Your task to perform on an android device: allow cookies in the chrome app Image 0: 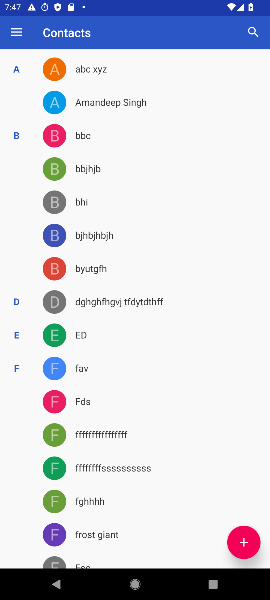
Step 0: press home button
Your task to perform on an android device: allow cookies in the chrome app Image 1: 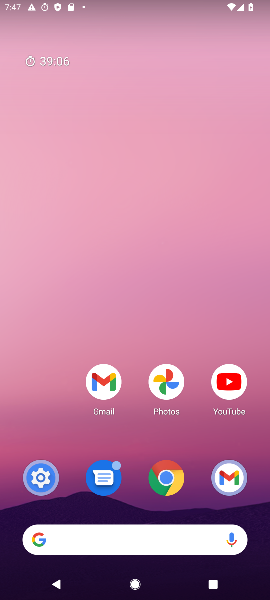
Step 1: click (163, 470)
Your task to perform on an android device: allow cookies in the chrome app Image 2: 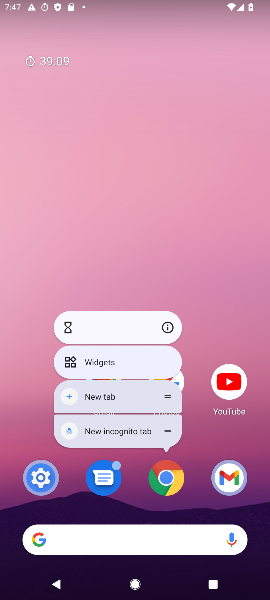
Step 2: click (168, 329)
Your task to perform on an android device: allow cookies in the chrome app Image 3: 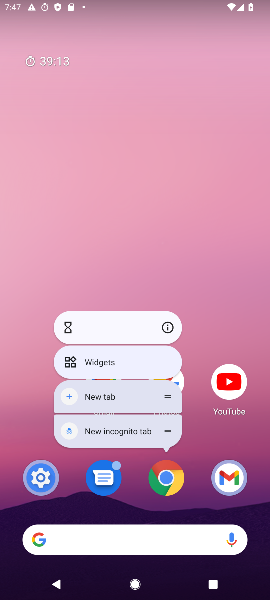
Step 3: click (167, 331)
Your task to perform on an android device: allow cookies in the chrome app Image 4: 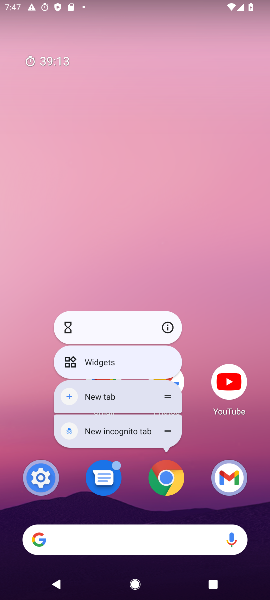
Step 4: click (167, 330)
Your task to perform on an android device: allow cookies in the chrome app Image 5: 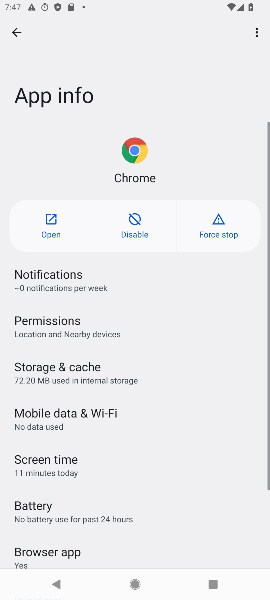
Step 5: click (45, 220)
Your task to perform on an android device: allow cookies in the chrome app Image 6: 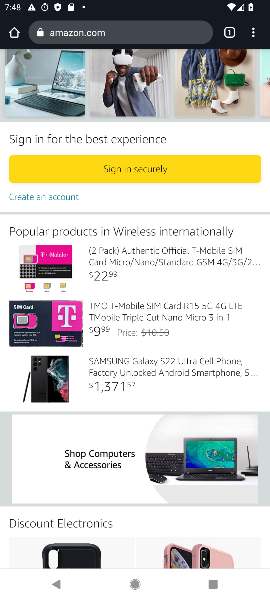
Step 6: drag from (58, 493) to (107, 358)
Your task to perform on an android device: allow cookies in the chrome app Image 7: 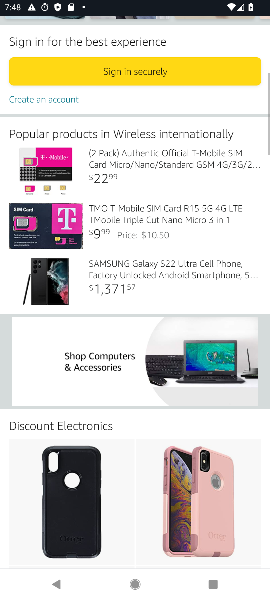
Step 7: drag from (134, 294) to (151, 596)
Your task to perform on an android device: allow cookies in the chrome app Image 8: 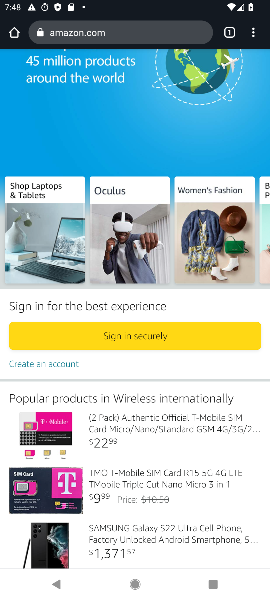
Step 8: drag from (248, 29) to (172, 431)
Your task to perform on an android device: allow cookies in the chrome app Image 9: 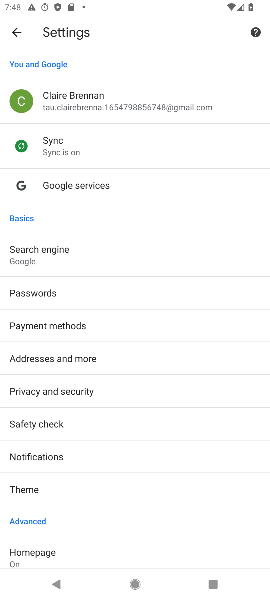
Step 9: drag from (96, 506) to (152, 227)
Your task to perform on an android device: allow cookies in the chrome app Image 10: 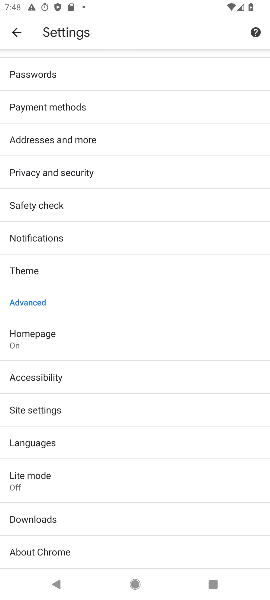
Step 10: click (45, 405)
Your task to perform on an android device: allow cookies in the chrome app Image 11: 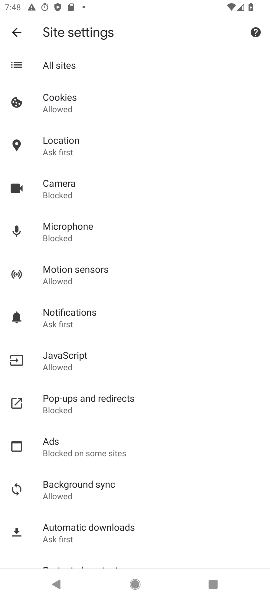
Step 11: click (102, 107)
Your task to perform on an android device: allow cookies in the chrome app Image 12: 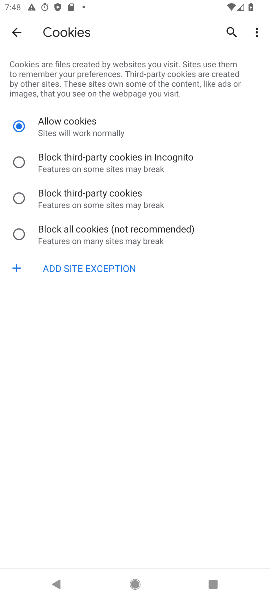
Step 12: drag from (68, 129) to (105, 393)
Your task to perform on an android device: allow cookies in the chrome app Image 13: 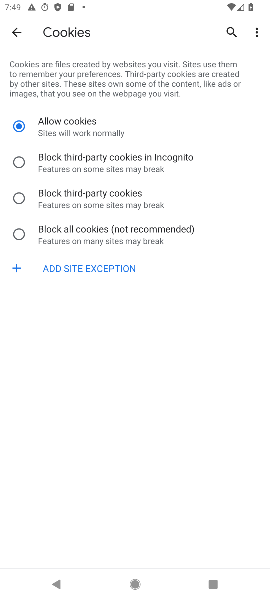
Step 13: drag from (81, 135) to (55, 495)
Your task to perform on an android device: allow cookies in the chrome app Image 14: 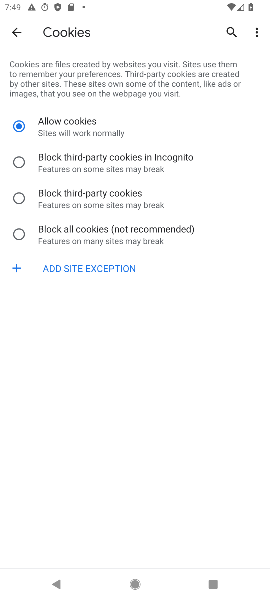
Step 14: drag from (72, 132) to (76, 562)
Your task to perform on an android device: allow cookies in the chrome app Image 15: 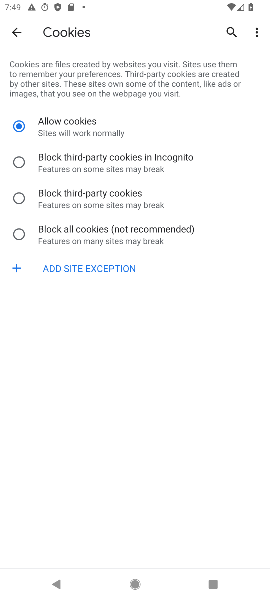
Step 15: click (75, 127)
Your task to perform on an android device: allow cookies in the chrome app Image 16: 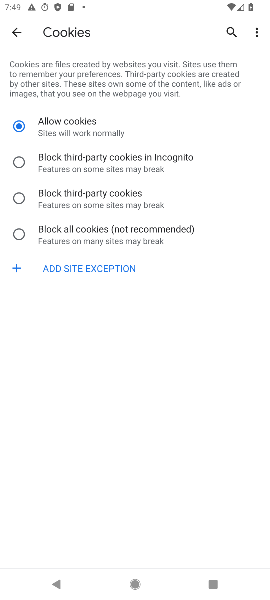
Step 16: click (89, 128)
Your task to perform on an android device: allow cookies in the chrome app Image 17: 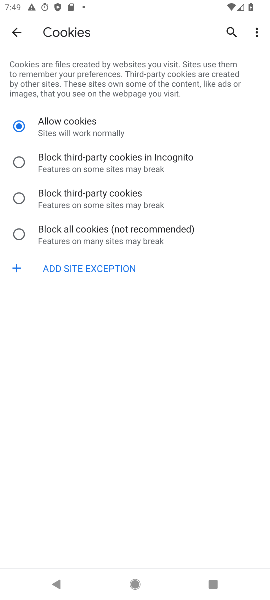
Step 17: drag from (44, 131) to (95, 408)
Your task to perform on an android device: allow cookies in the chrome app Image 18: 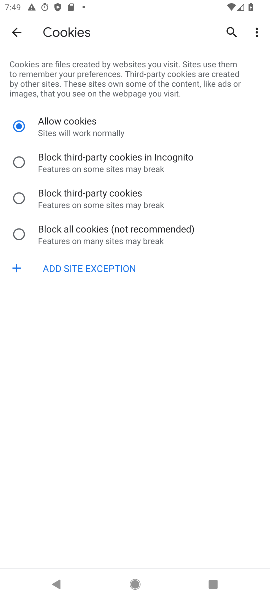
Step 18: drag from (106, 128) to (92, 389)
Your task to perform on an android device: allow cookies in the chrome app Image 19: 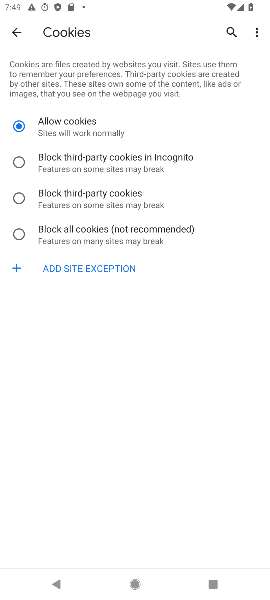
Step 19: click (68, 124)
Your task to perform on an android device: allow cookies in the chrome app Image 20: 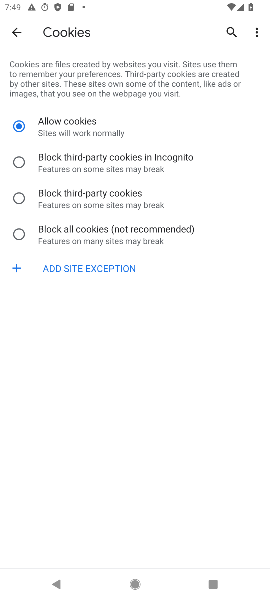
Step 20: task complete